Your task to perform on an android device: Open privacy settings Image 0: 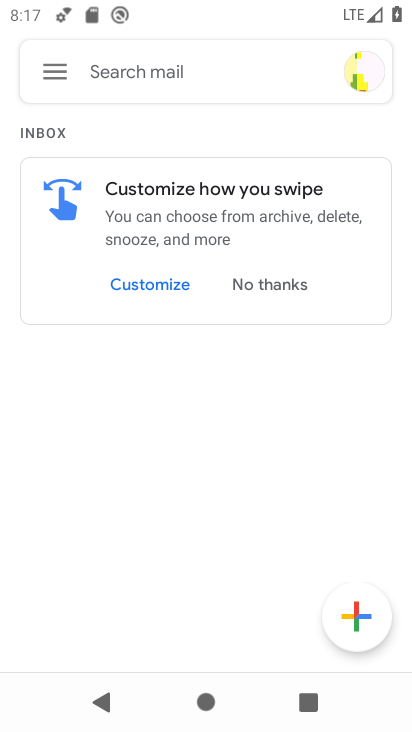
Step 0: press home button
Your task to perform on an android device: Open privacy settings Image 1: 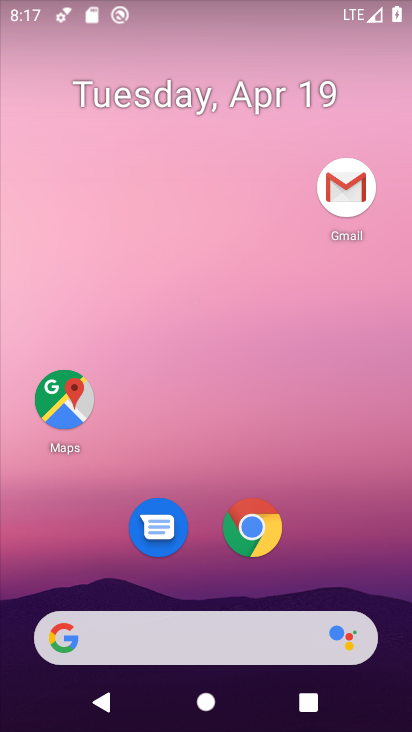
Step 1: drag from (339, 542) to (346, 104)
Your task to perform on an android device: Open privacy settings Image 2: 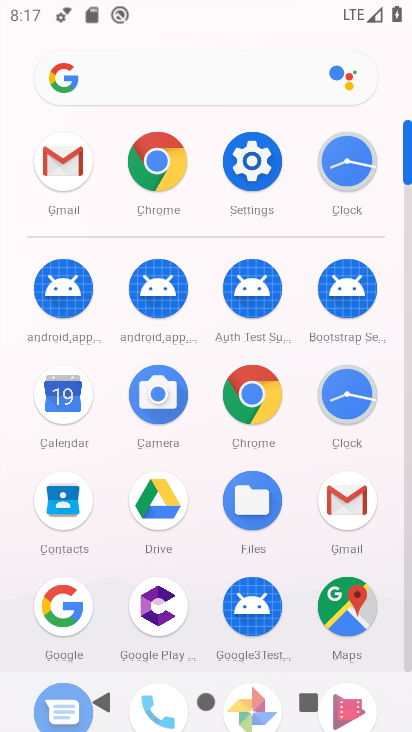
Step 2: click (257, 177)
Your task to perform on an android device: Open privacy settings Image 3: 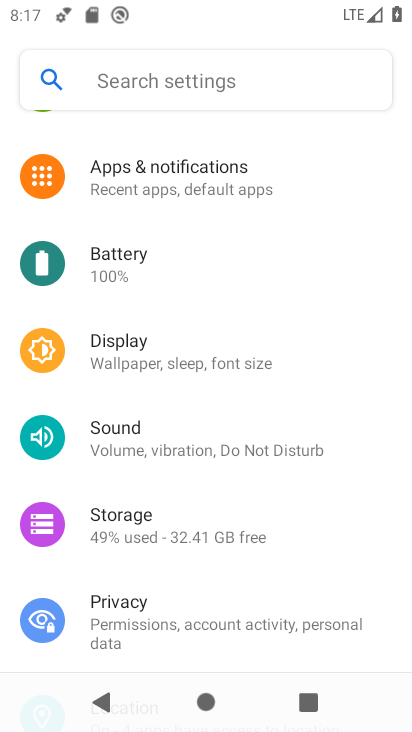
Step 3: click (178, 624)
Your task to perform on an android device: Open privacy settings Image 4: 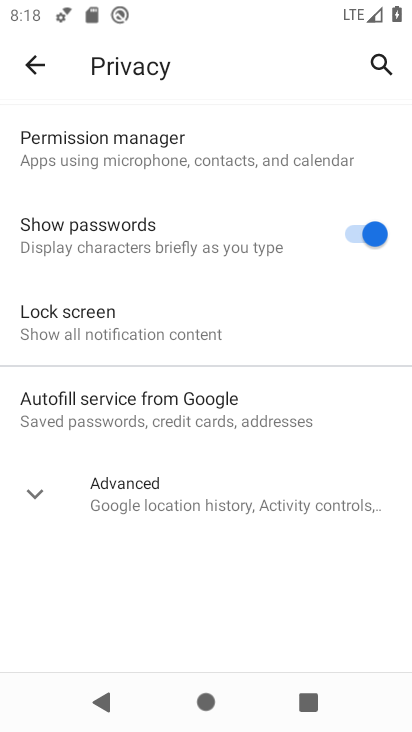
Step 4: task complete